Your task to perform on an android device: turn off sleep mode Image 0: 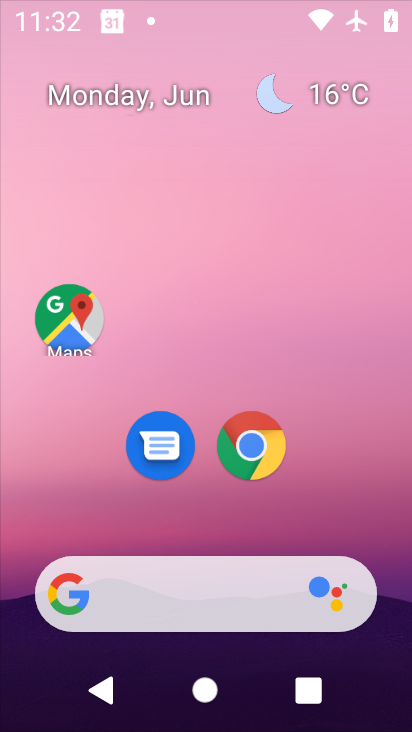
Step 0: press home button
Your task to perform on an android device: turn off sleep mode Image 1: 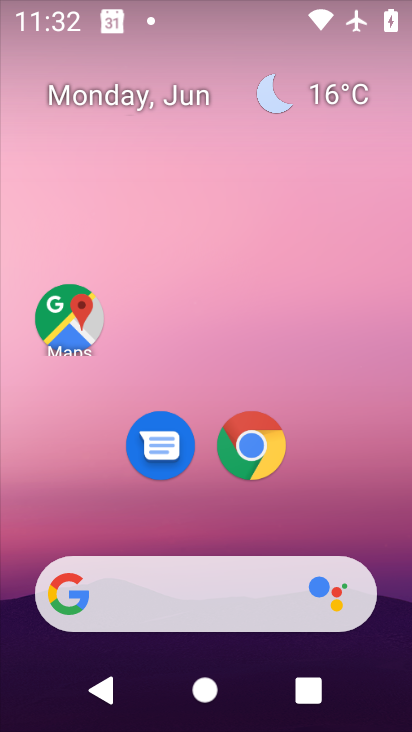
Step 1: drag from (200, 526) to (197, 135)
Your task to perform on an android device: turn off sleep mode Image 2: 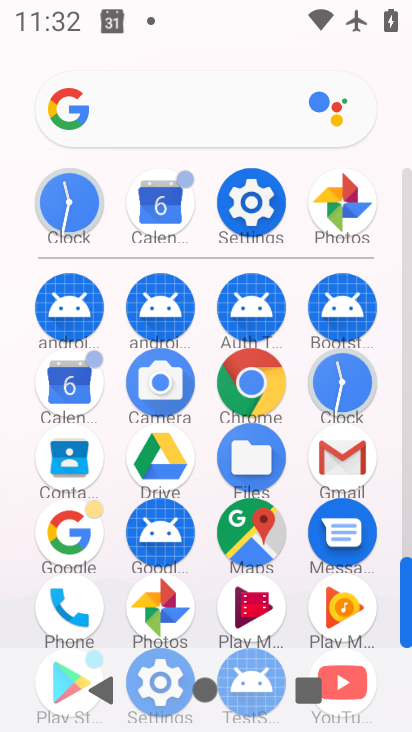
Step 2: click (250, 200)
Your task to perform on an android device: turn off sleep mode Image 3: 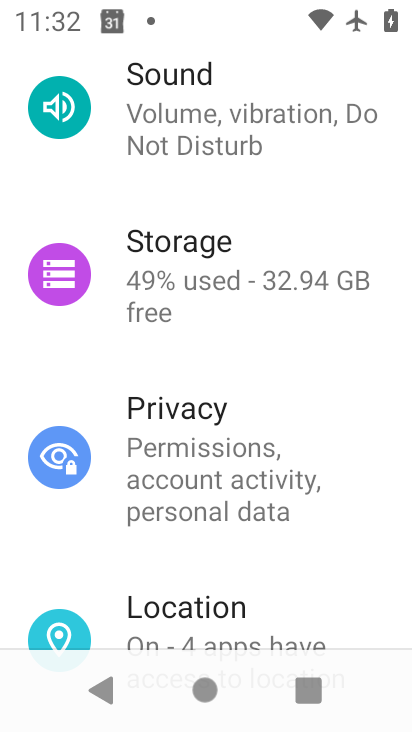
Step 3: drag from (250, 200) to (407, 686)
Your task to perform on an android device: turn off sleep mode Image 4: 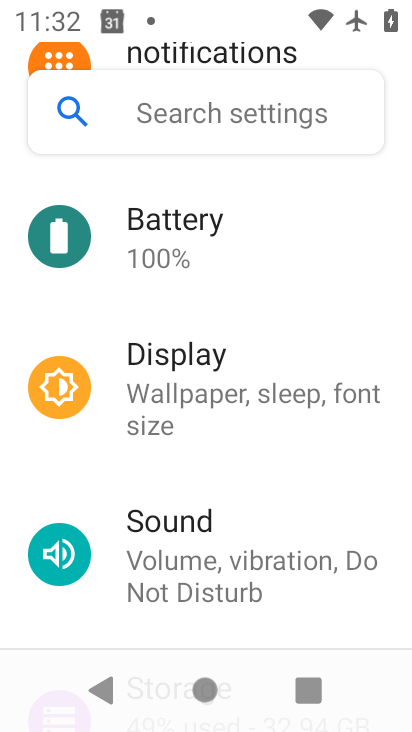
Step 4: click (195, 379)
Your task to perform on an android device: turn off sleep mode Image 5: 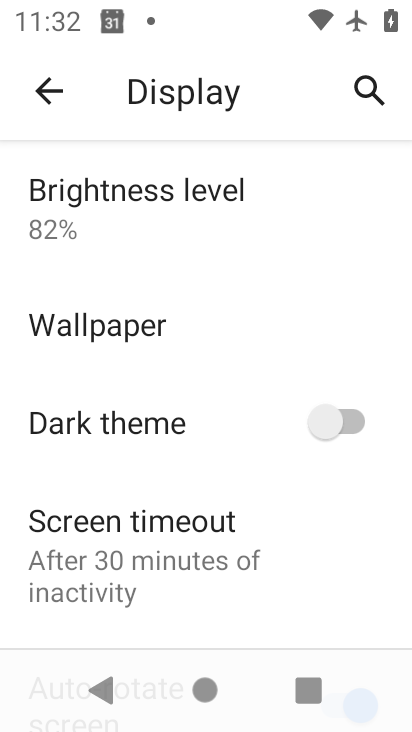
Step 5: task complete